Your task to perform on an android device: Open Chrome and go to settings Image 0: 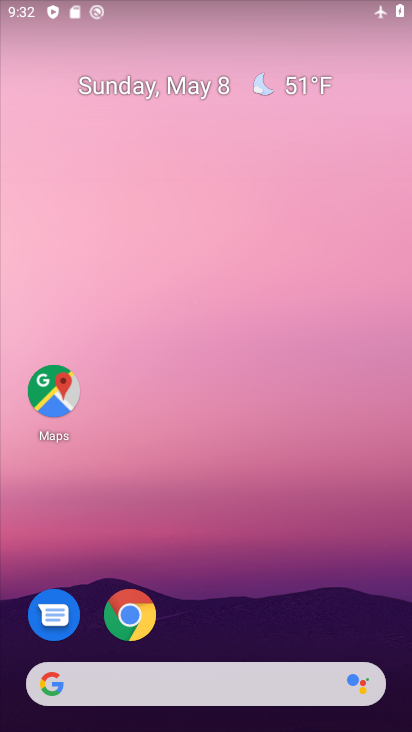
Step 0: click (142, 605)
Your task to perform on an android device: Open Chrome and go to settings Image 1: 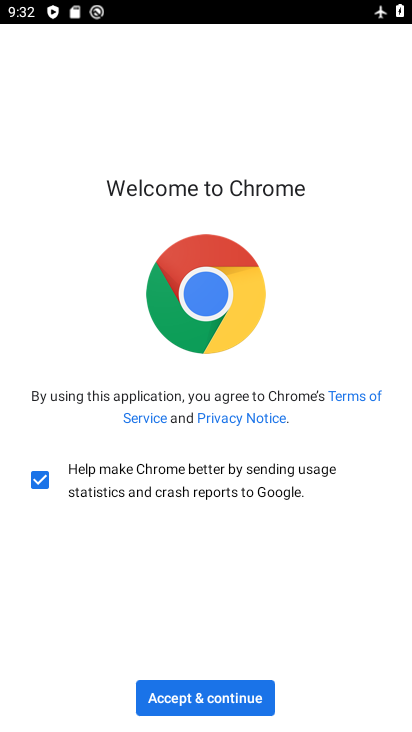
Step 1: click (197, 705)
Your task to perform on an android device: Open Chrome and go to settings Image 2: 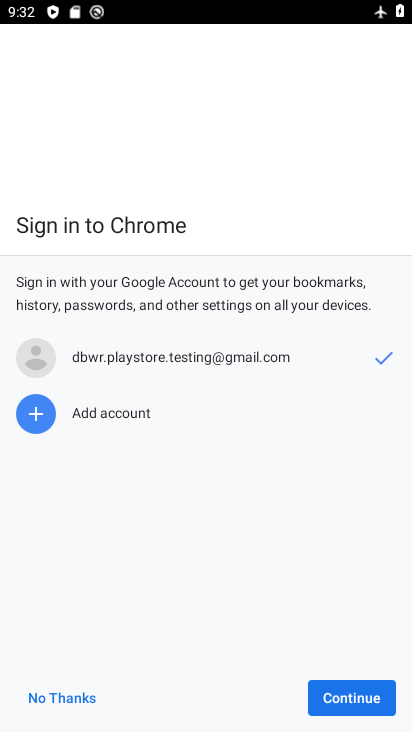
Step 2: click (356, 692)
Your task to perform on an android device: Open Chrome and go to settings Image 3: 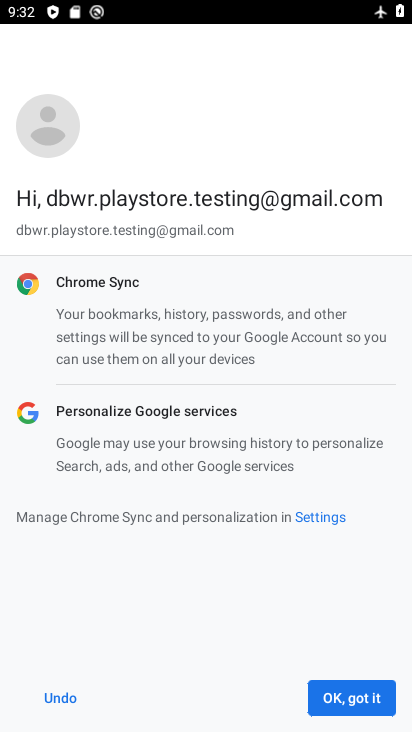
Step 3: click (356, 692)
Your task to perform on an android device: Open Chrome and go to settings Image 4: 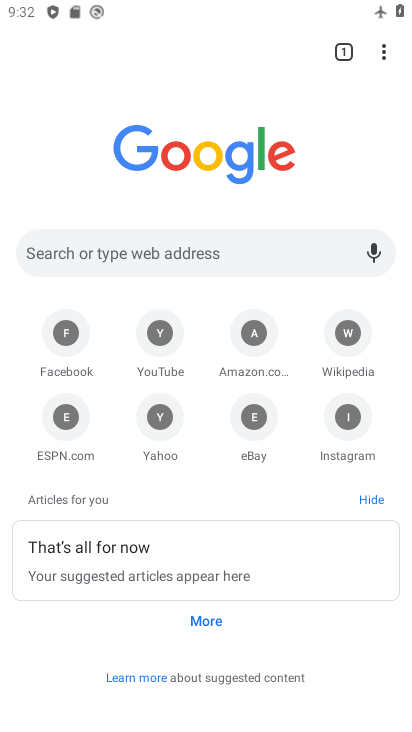
Step 4: click (376, 43)
Your task to perform on an android device: Open Chrome and go to settings Image 5: 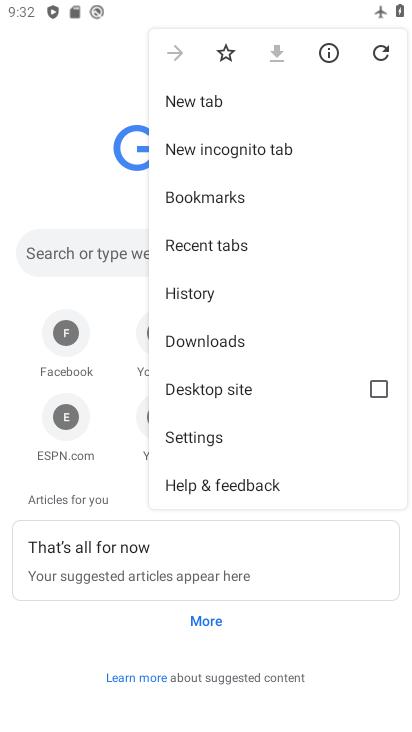
Step 5: click (188, 440)
Your task to perform on an android device: Open Chrome and go to settings Image 6: 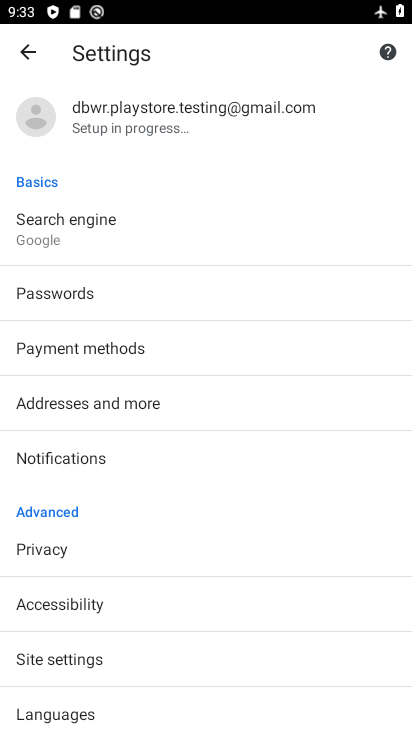
Step 6: task complete